Your task to perform on an android device: open app "Mercado Libre" Image 0: 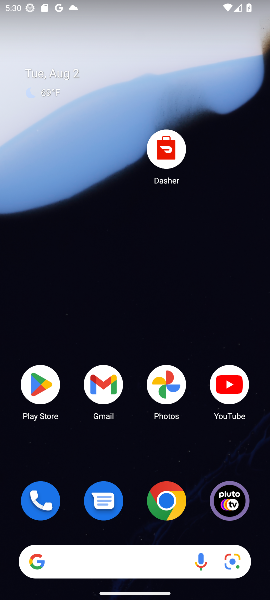
Step 0: click (48, 396)
Your task to perform on an android device: open app "Mercado Libre" Image 1: 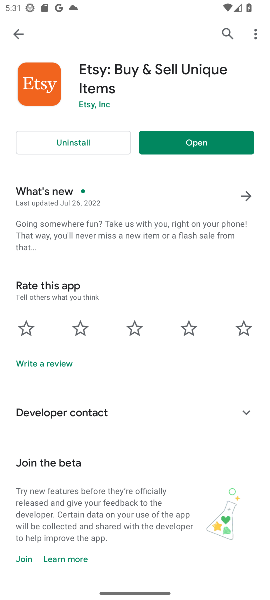
Step 1: click (231, 32)
Your task to perform on an android device: open app "Mercado Libre" Image 2: 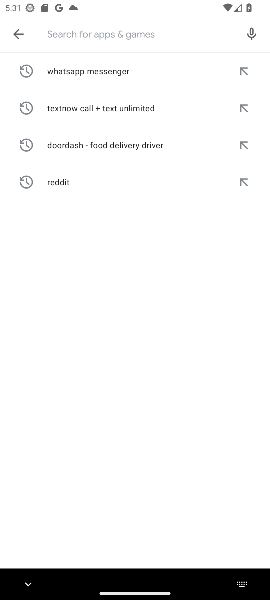
Step 2: type "Mercado Libre"
Your task to perform on an android device: open app "Mercado Libre" Image 3: 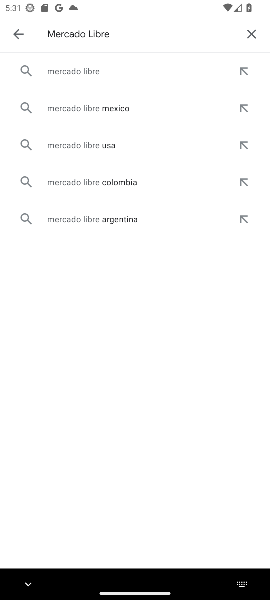
Step 3: click (78, 78)
Your task to perform on an android device: open app "Mercado Libre" Image 4: 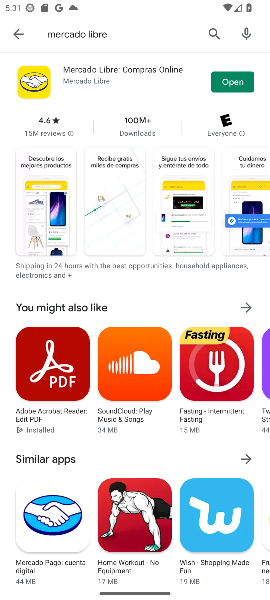
Step 4: click (229, 81)
Your task to perform on an android device: open app "Mercado Libre" Image 5: 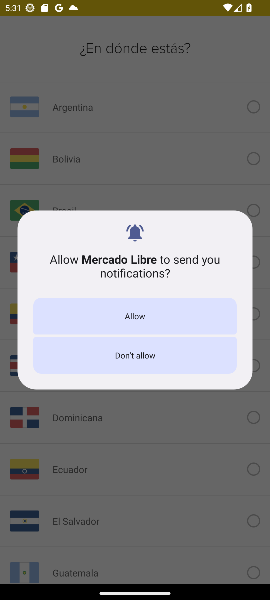
Step 5: task complete